Your task to perform on an android device: Search for sushi restaurants on Maps Image 0: 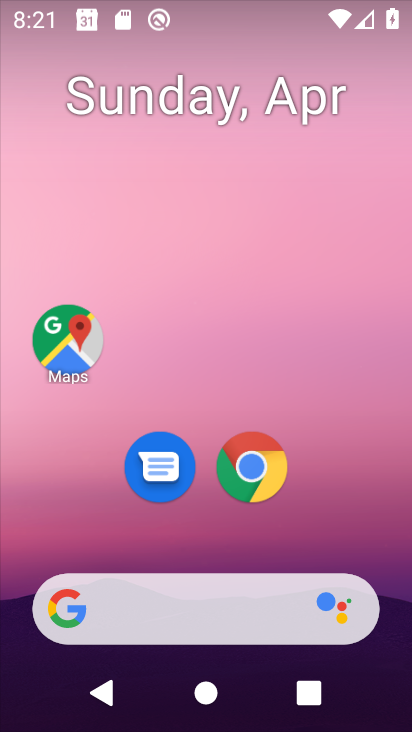
Step 0: click (65, 336)
Your task to perform on an android device: Search for sushi restaurants on Maps Image 1: 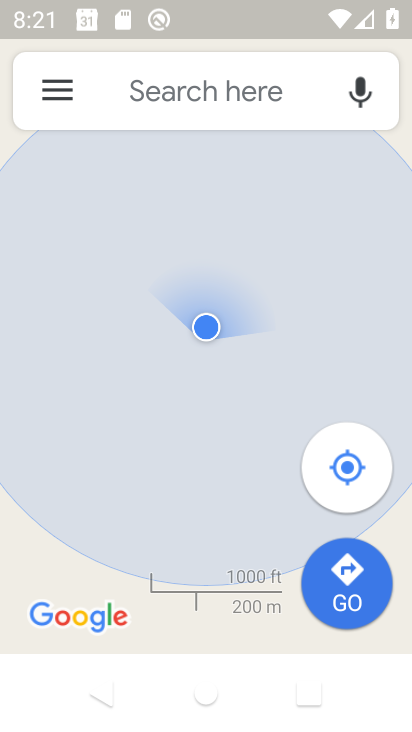
Step 1: click (188, 101)
Your task to perform on an android device: Search for sushi restaurants on Maps Image 2: 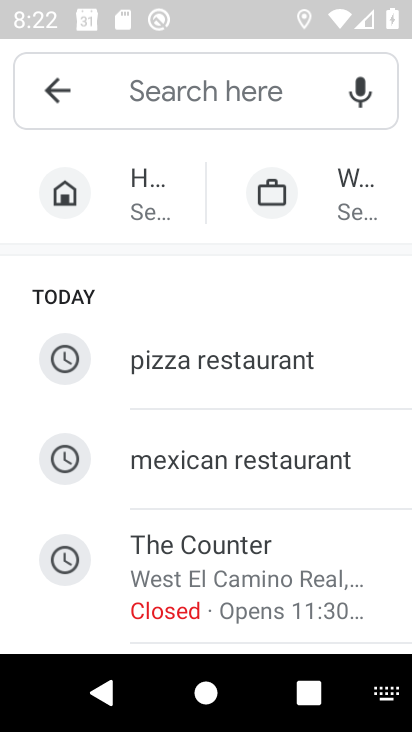
Step 2: type "sushi restaurants"
Your task to perform on an android device: Search for sushi restaurants on Maps Image 3: 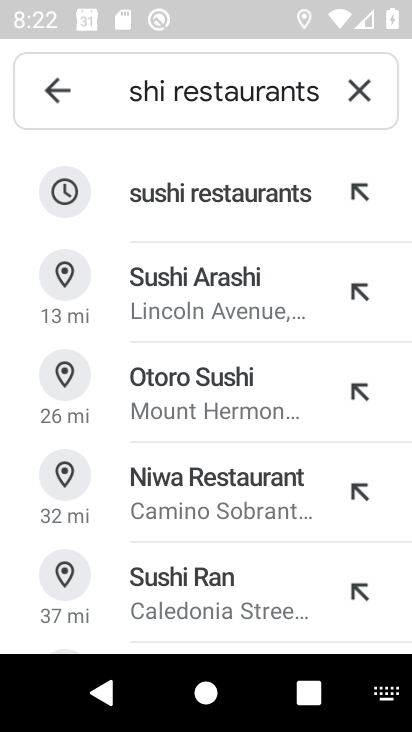
Step 3: click (227, 192)
Your task to perform on an android device: Search for sushi restaurants on Maps Image 4: 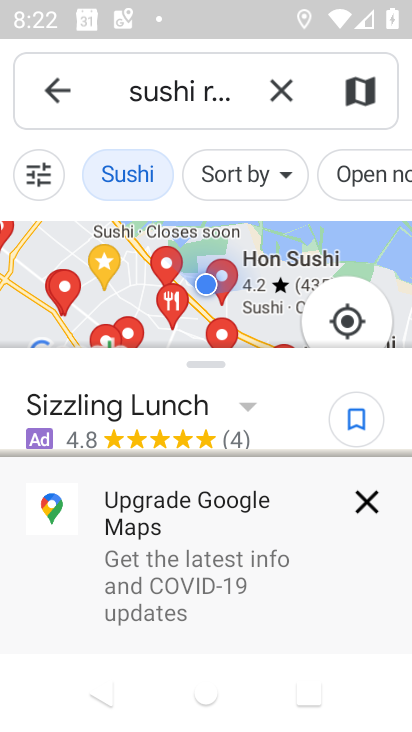
Step 4: task complete